Your task to perform on an android device: turn off translation in the chrome app Image 0: 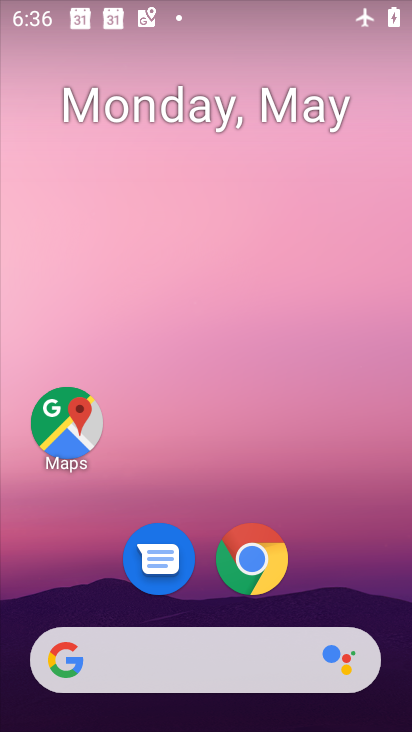
Step 0: drag from (390, 634) to (273, 118)
Your task to perform on an android device: turn off translation in the chrome app Image 1: 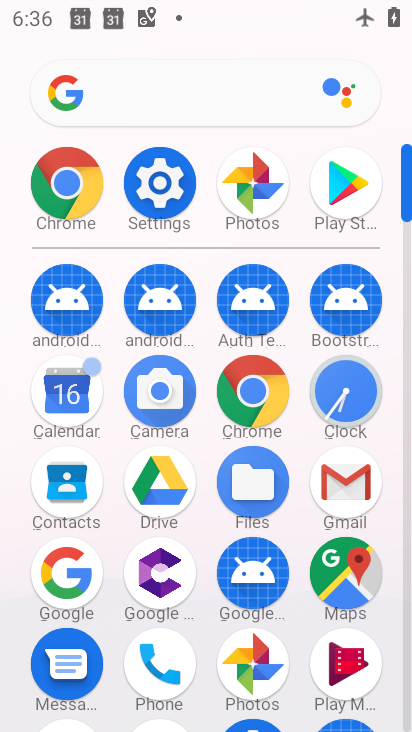
Step 1: click (74, 186)
Your task to perform on an android device: turn off translation in the chrome app Image 2: 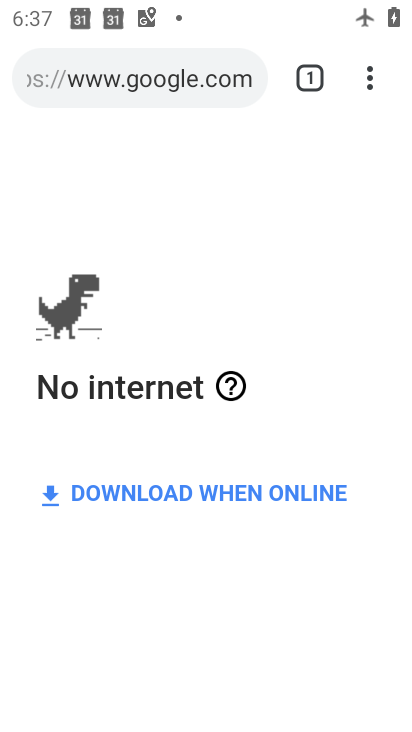
Step 2: click (368, 76)
Your task to perform on an android device: turn off translation in the chrome app Image 3: 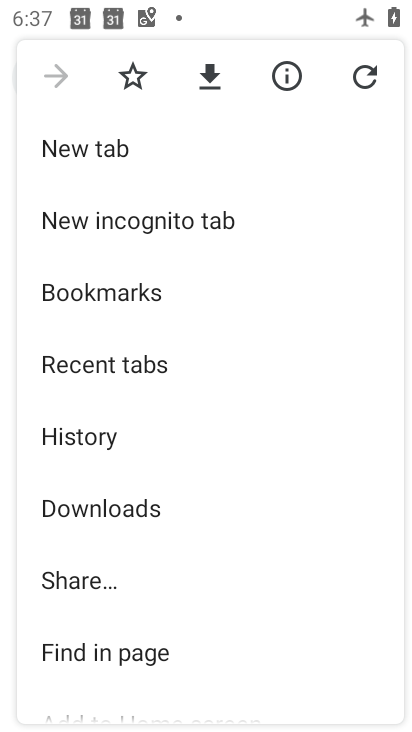
Step 3: drag from (143, 668) to (138, 174)
Your task to perform on an android device: turn off translation in the chrome app Image 4: 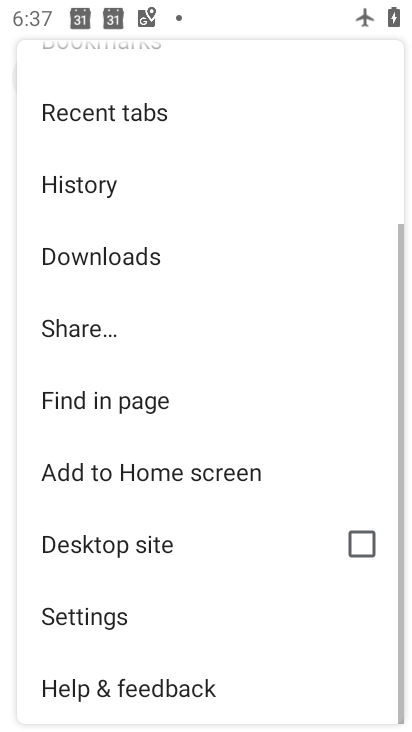
Step 4: click (115, 615)
Your task to perform on an android device: turn off translation in the chrome app Image 5: 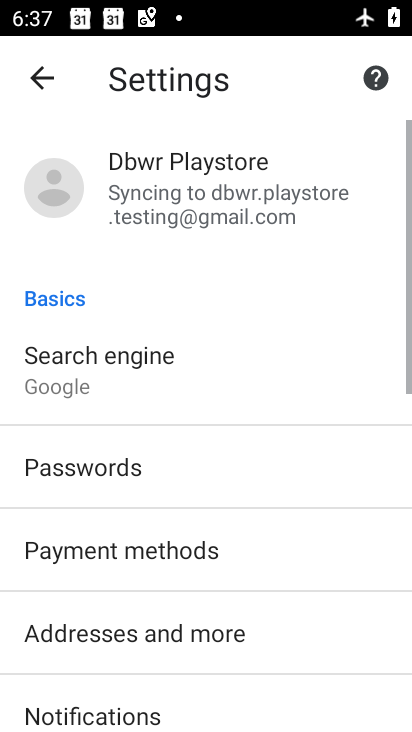
Step 5: drag from (115, 615) to (141, 273)
Your task to perform on an android device: turn off translation in the chrome app Image 6: 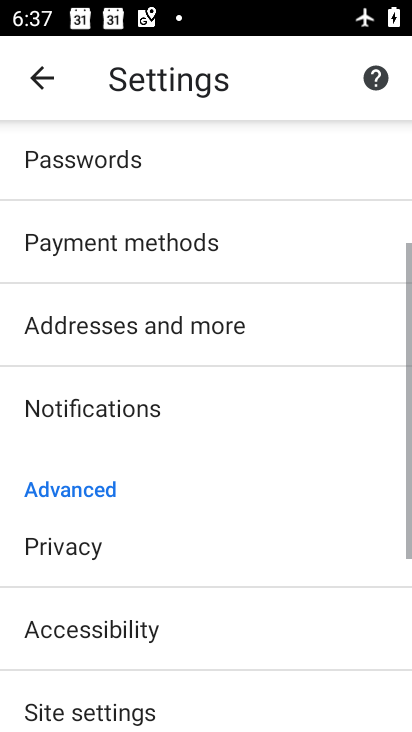
Step 6: click (141, 204)
Your task to perform on an android device: turn off translation in the chrome app Image 7: 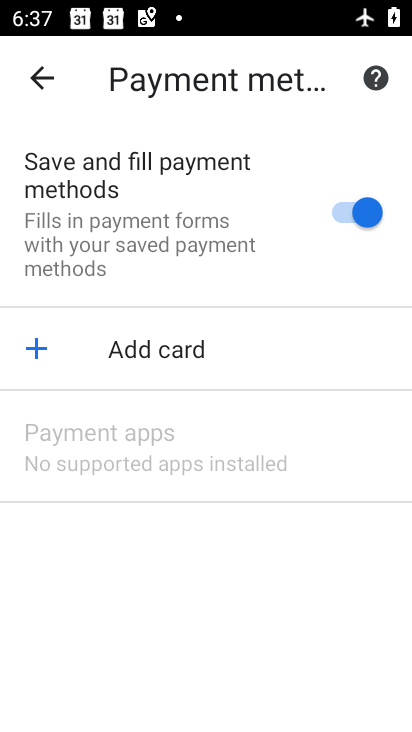
Step 7: press back button
Your task to perform on an android device: turn off translation in the chrome app Image 8: 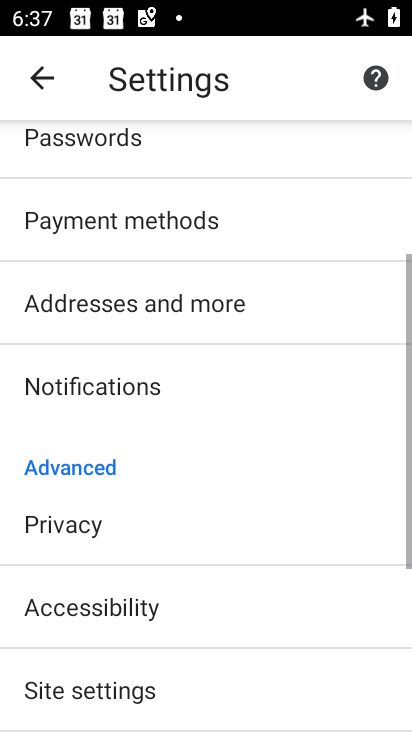
Step 8: drag from (234, 620) to (215, 219)
Your task to perform on an android device: turn off translation in the chrome app Image 9: 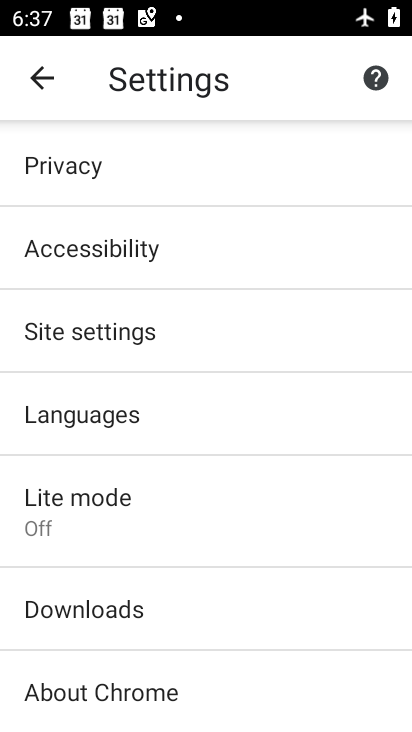
Step 9: click (105, 429)
Your task to perform on an android device: turn off translation in the chrome app Image 10: 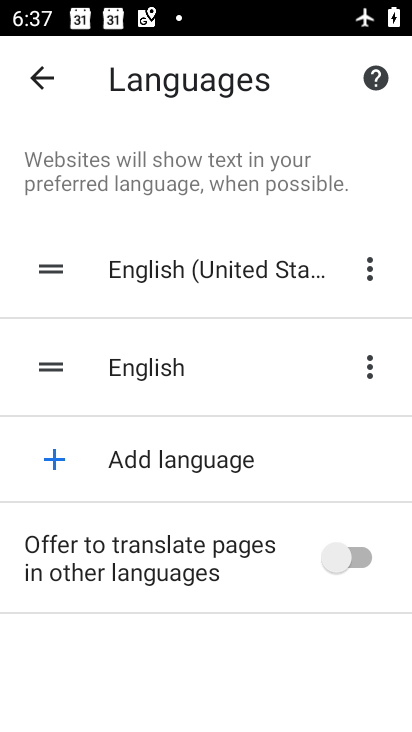
Step 10: task complete